Your task to perform on an android device: snooze an email in the gmail app Image 0: 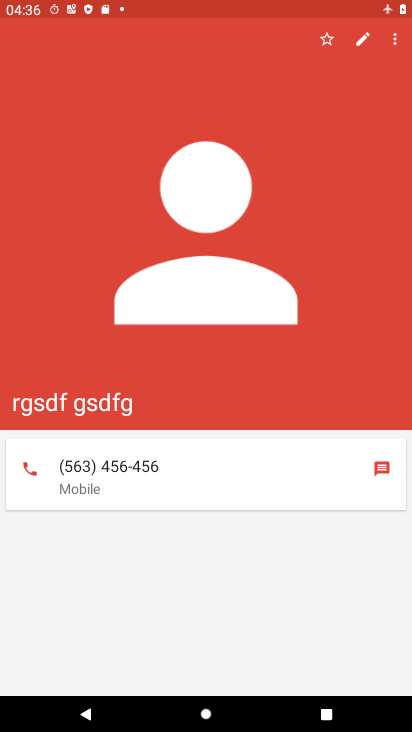
Step 0: press home button
Your task to perform on an android device: snooze an email in the gmail app Image 1: 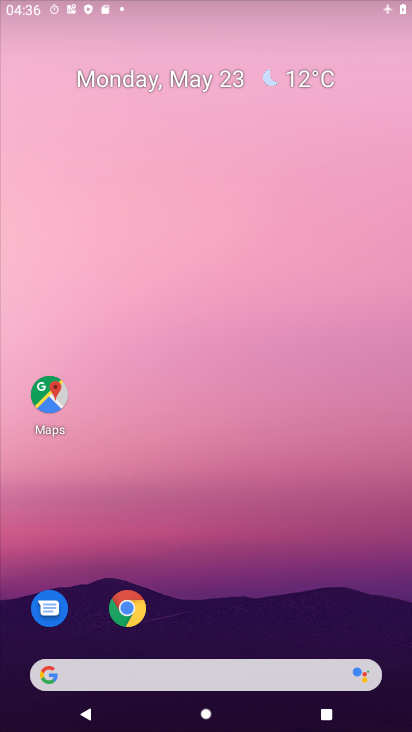
Step 1: drag from (331, 559) to (229, 51)
Your task to perform on an android device: snooze an email in the gmail app Image 2: 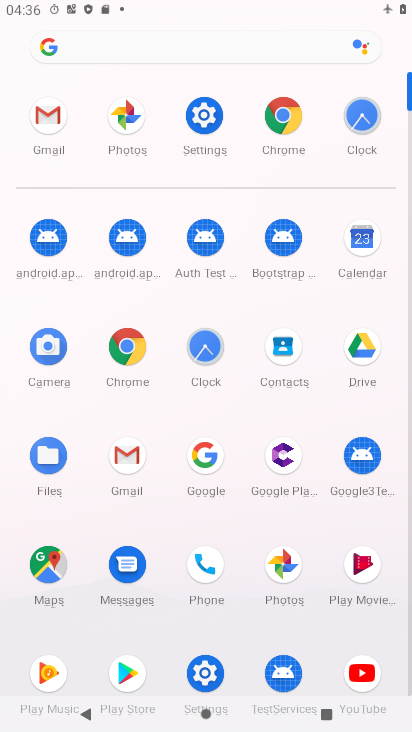
Step 2: click (30, 101)
Your task to perform on an android device: snooze an email in the gmail app Image 3: 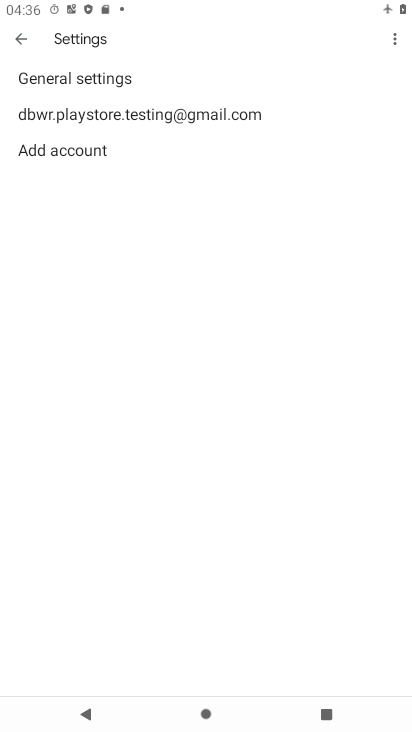
Step 3: click (24, 38)
Your task to perform on an android device: snooze an email in the gmail app Image 4: 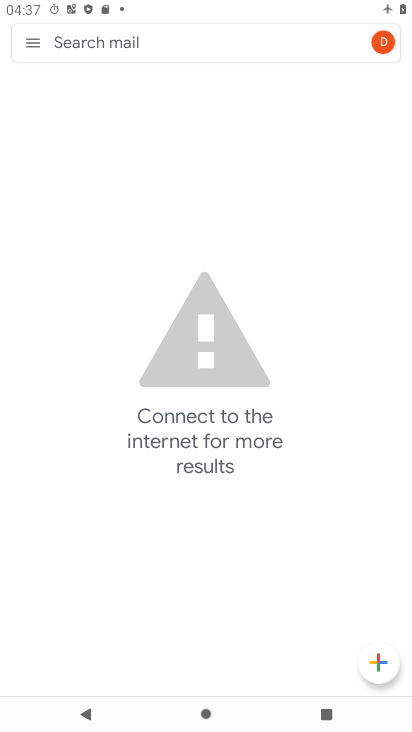
Step 4: click (29, 44)
Your task to perform on an android device: snooze an email in the gmail app Image 5: 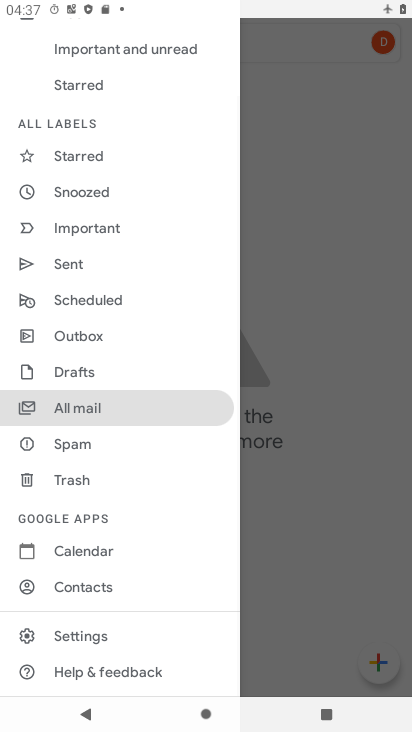
Step 5: click (109, 413)
Your task to perform on an android device: snooze an email in the gmail app Image 6: 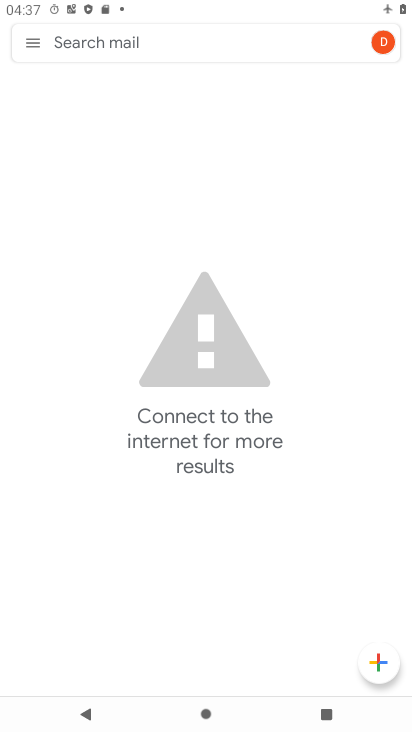
Step 6: task complete